Your task to perform on an android device: change the clock display to digital Image 0: 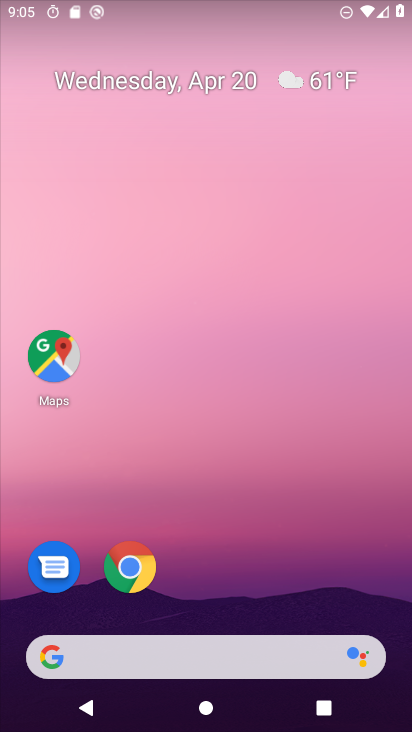
Step 0: drag from (335, 488) to (248, 26)
Your task to perform on an android device: change the clock display to digital Image 1: 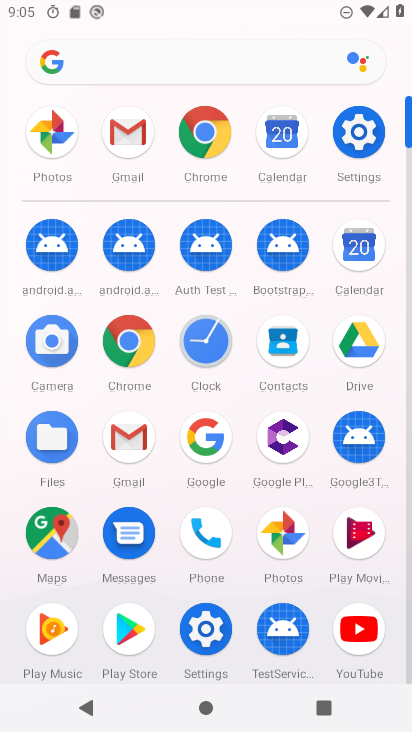
Step 1: click (204, 350)
Your task to perform on an android device: change the clock display to digital Image 2: 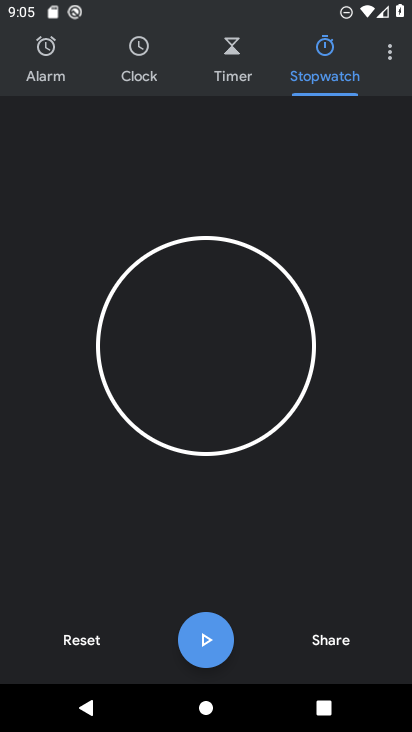
Step 2: click (392, 55)
Your task to perform on an android device: change the clock display to digital Image 3: 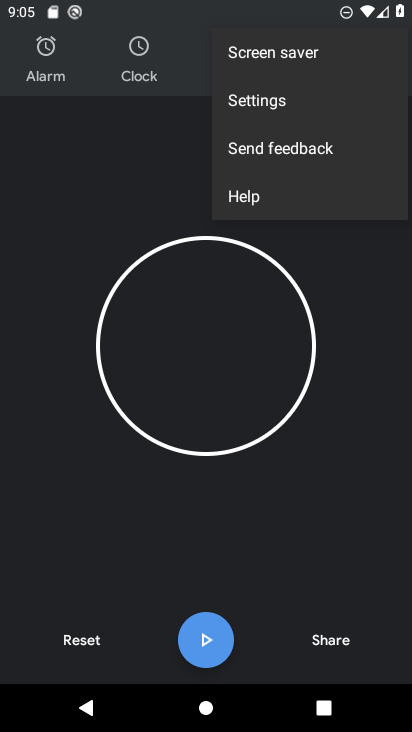
Step 3: click (270, 96)
Your task to perform on an android device: change the clock display to digital Image 4: 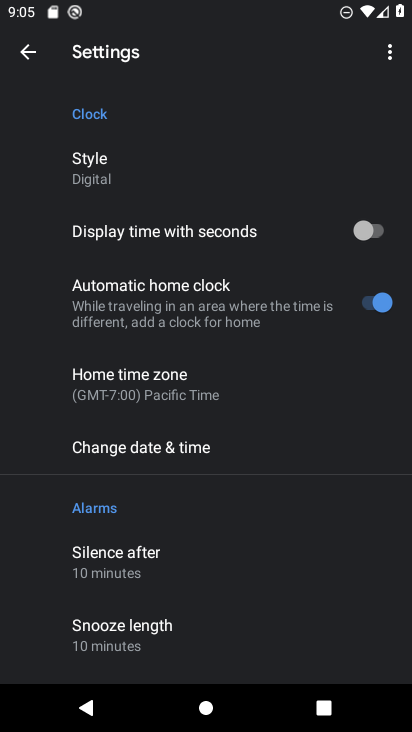
Step 4: task complete